Your task to perform on an android device: turn on showing notifications on the lock screen Image 0: 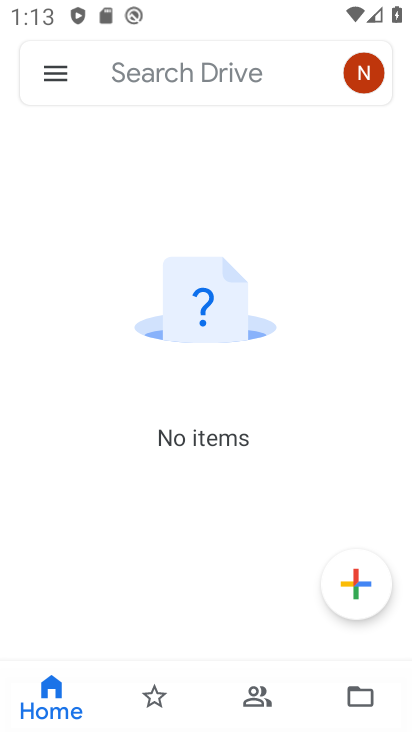
Step 0: press home button
Your task to perform on an android device: turn on showing notifications on the lock screen Image 1: 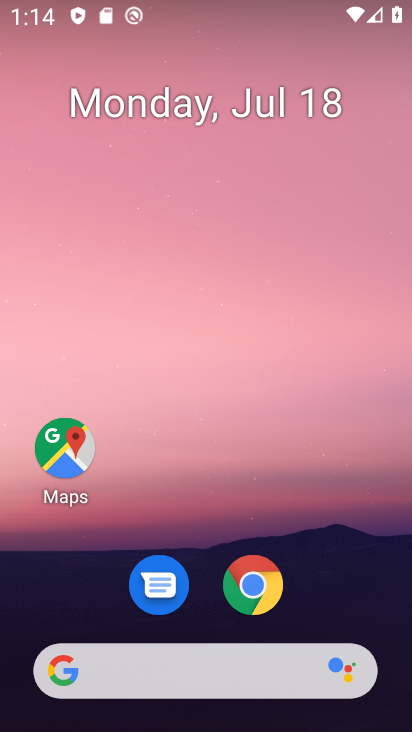
Step 1: drag from (199, 647) to (166, 98)
Your task to perform on an android device: turn on showing notifications on the lock screen Image 2: 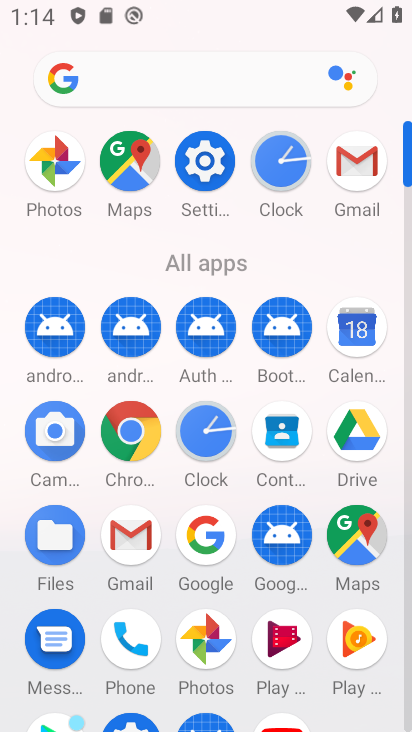
Step 2: click (197, 158)
Your task to perform on an android device: turn on showing notifications on the lock screen Image 3: 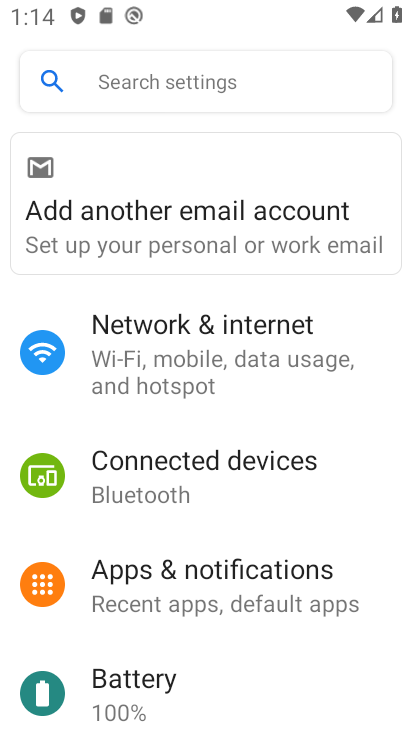
Step 3: click (225, 596)
Your task to perform on an android device: turn on showing notifications on the lock screen Image 4: 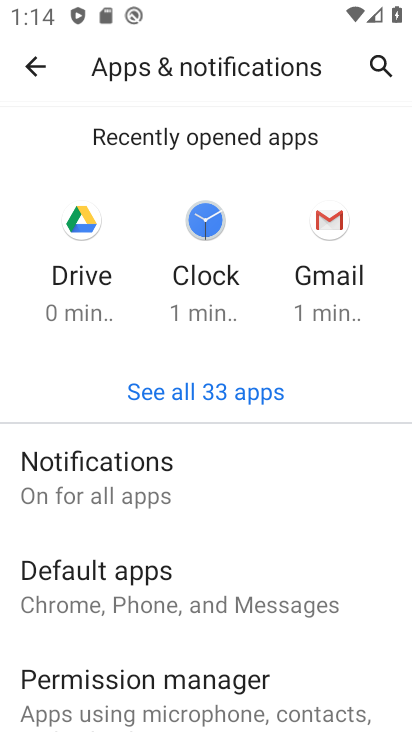
Step 4: click (161, 481)
Your task to perform on an android device: turn on showing notifications on the lock screen Image 5: 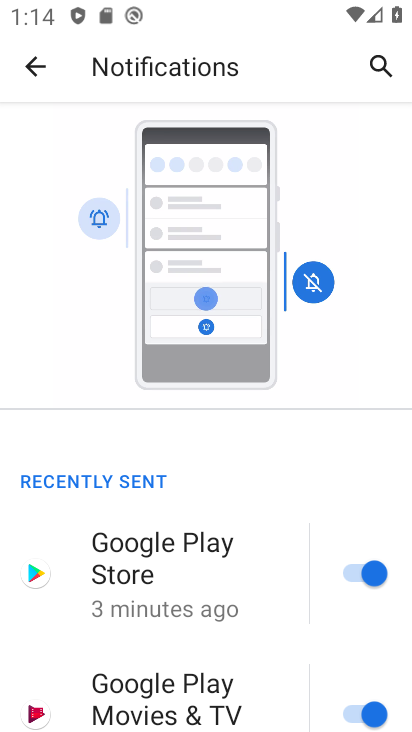
Step 5: drag from (177, 483) to (136, 44)
Your task to perform on an android device: turn on showing notifications on the lock screen Image 6: 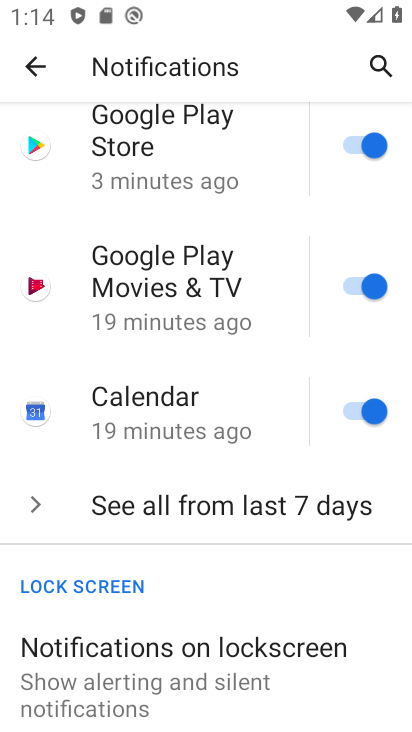
Step 6: drag from (192, 614) to (148, 195)
Your task to perform on an android device: turn on showing notifications on the lock screen Image 7: 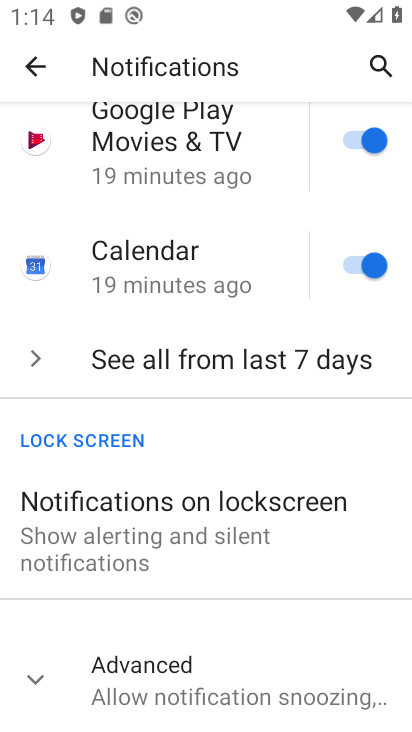
Step 7: click (128, 526)
Your task to perform on an android device: turn on showing notifications on the lock screen Image 8: 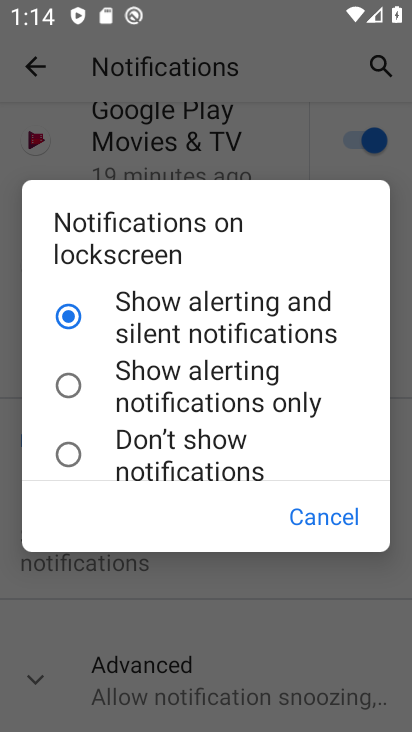
Step 8: click (186, 328)
Your task to perform on an android device: turn on showing notifications on the lock screen Image 9: 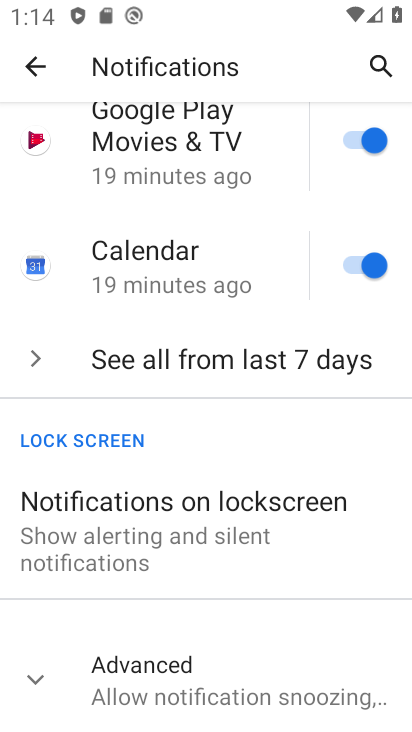
Step 9: task complete